Your task to perform on an android device: turn on priority inbox in the gmail app Image 0: 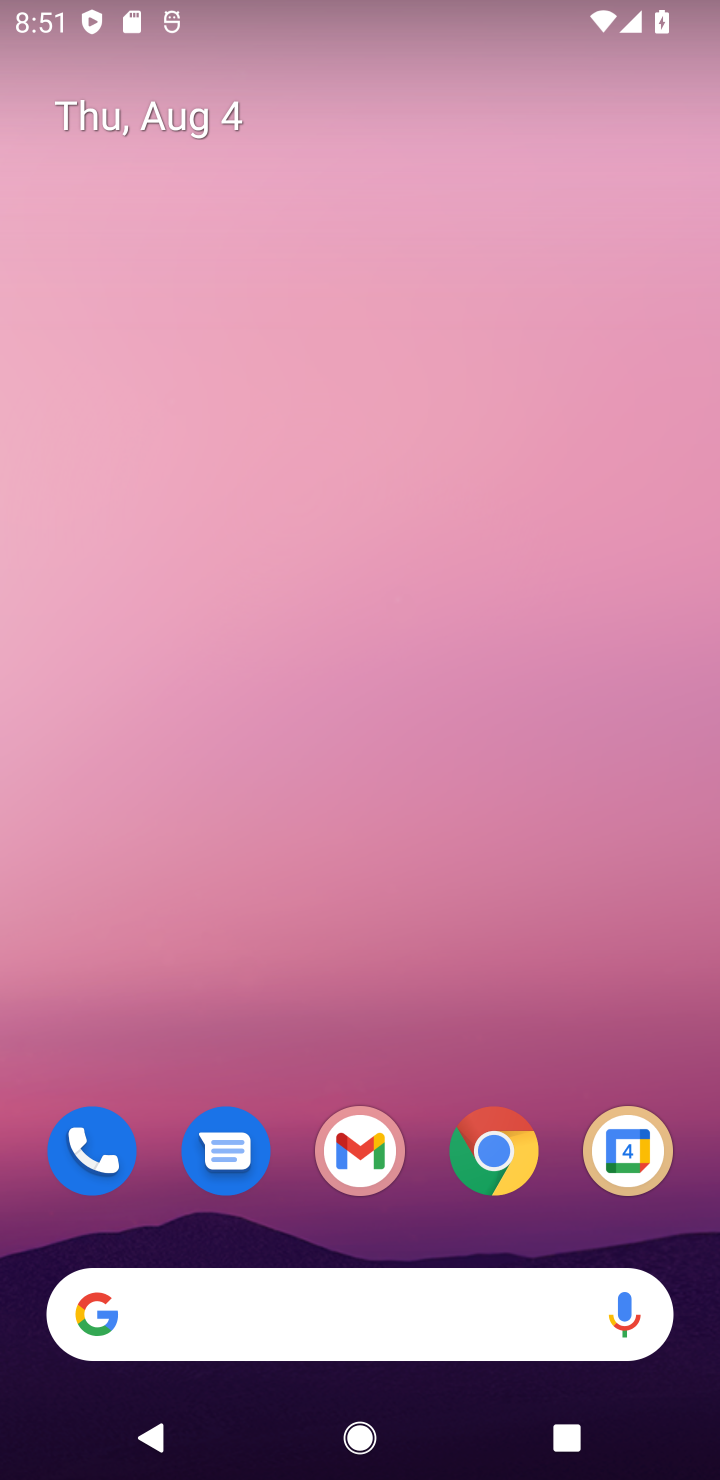
Step 0: drag from (358, 782) to (358, 213)
Your task to perform on an android device: turn on priority inbox in the gmail app Image 1: 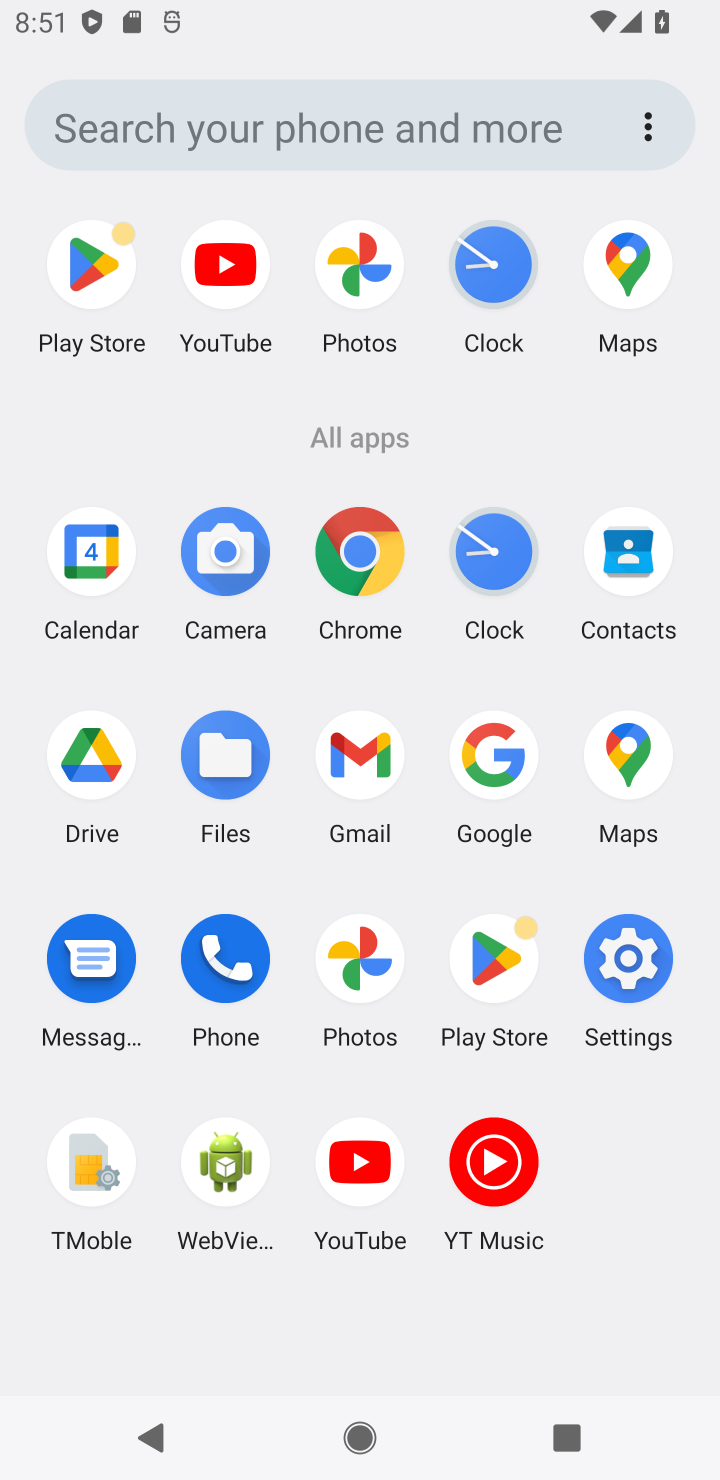
Step 1: click (374, 755)
Your task to perform on an android device: turn on priority inbox in the gmail app Image 2: 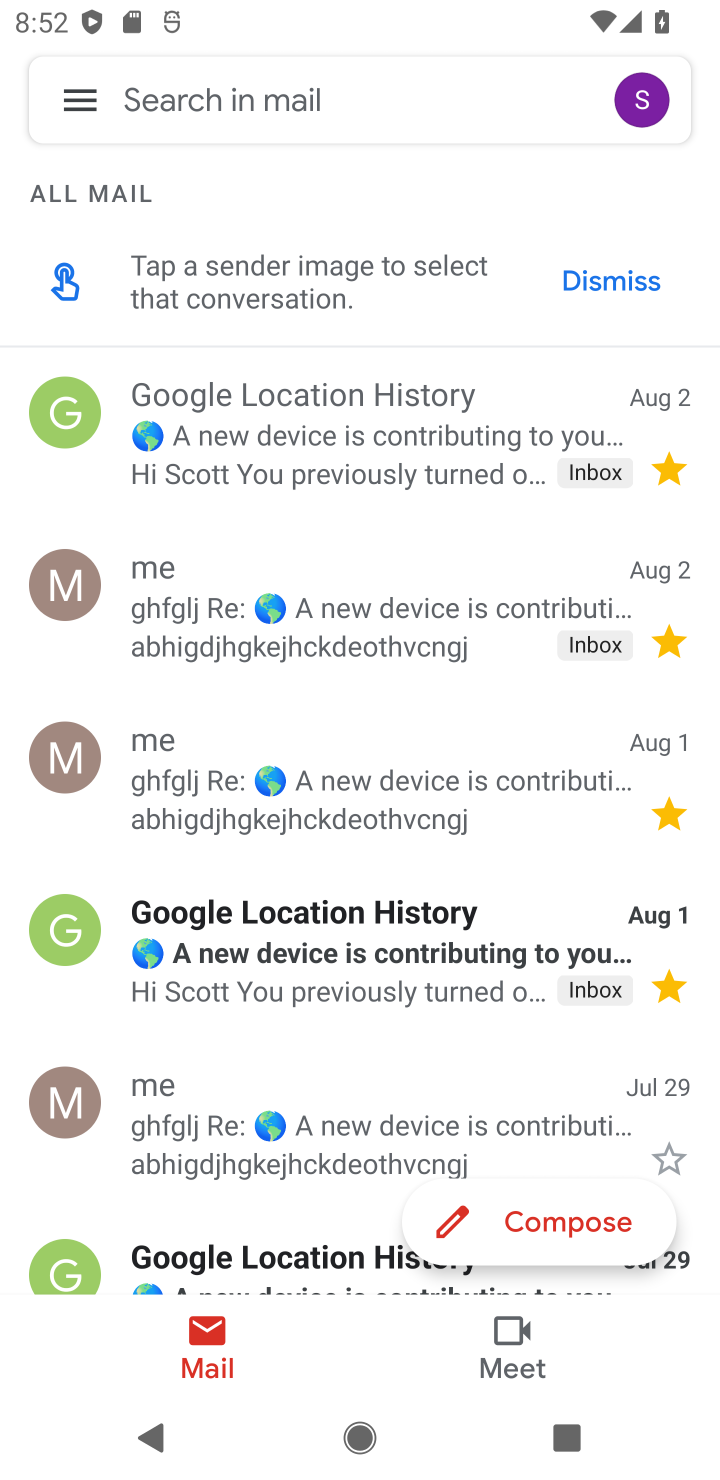
Step 2: click (89, 111)
Your task to perform on an android device: turn on priority inbox in the gmail app Image 3: 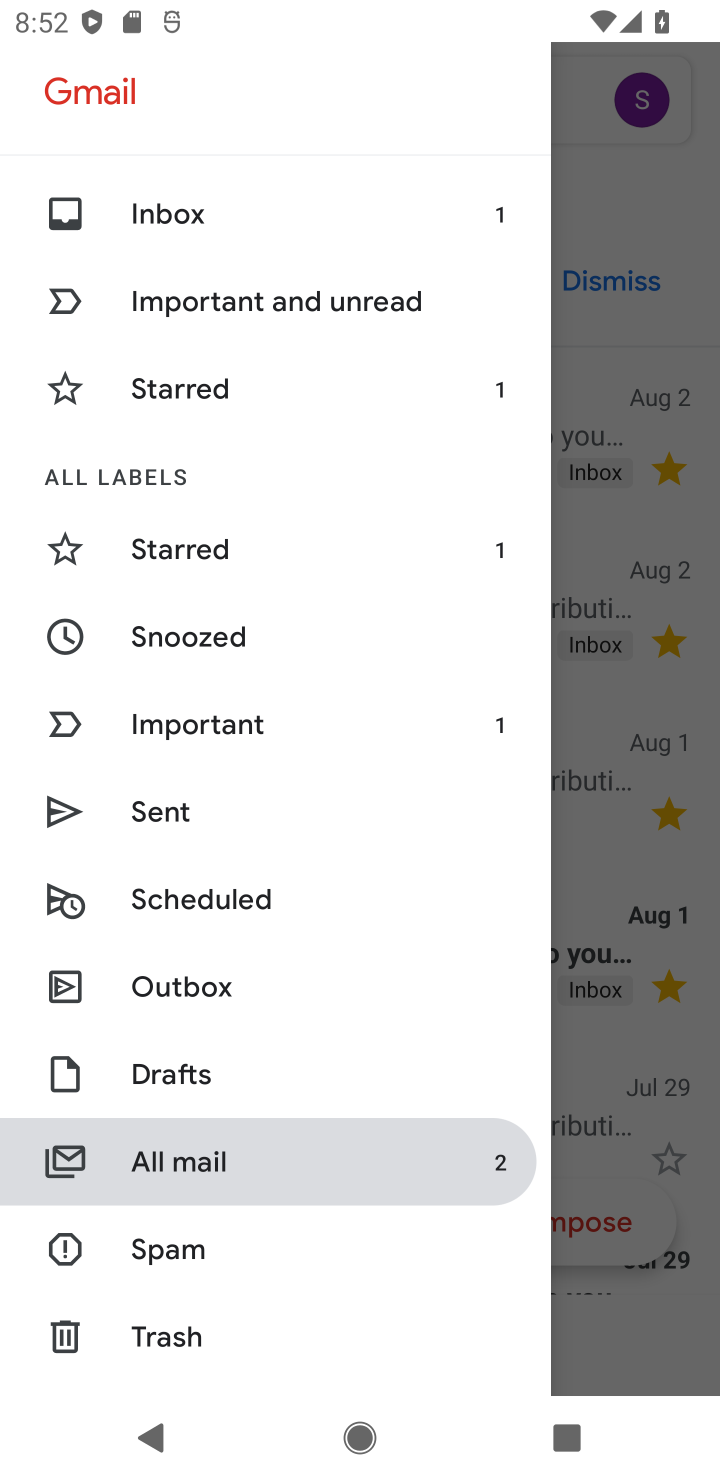
Step 3: drag from (382, 1130) to (298, 310)
Your task to perform on an android device: turn on priority inbox in the gmail app Image 4: 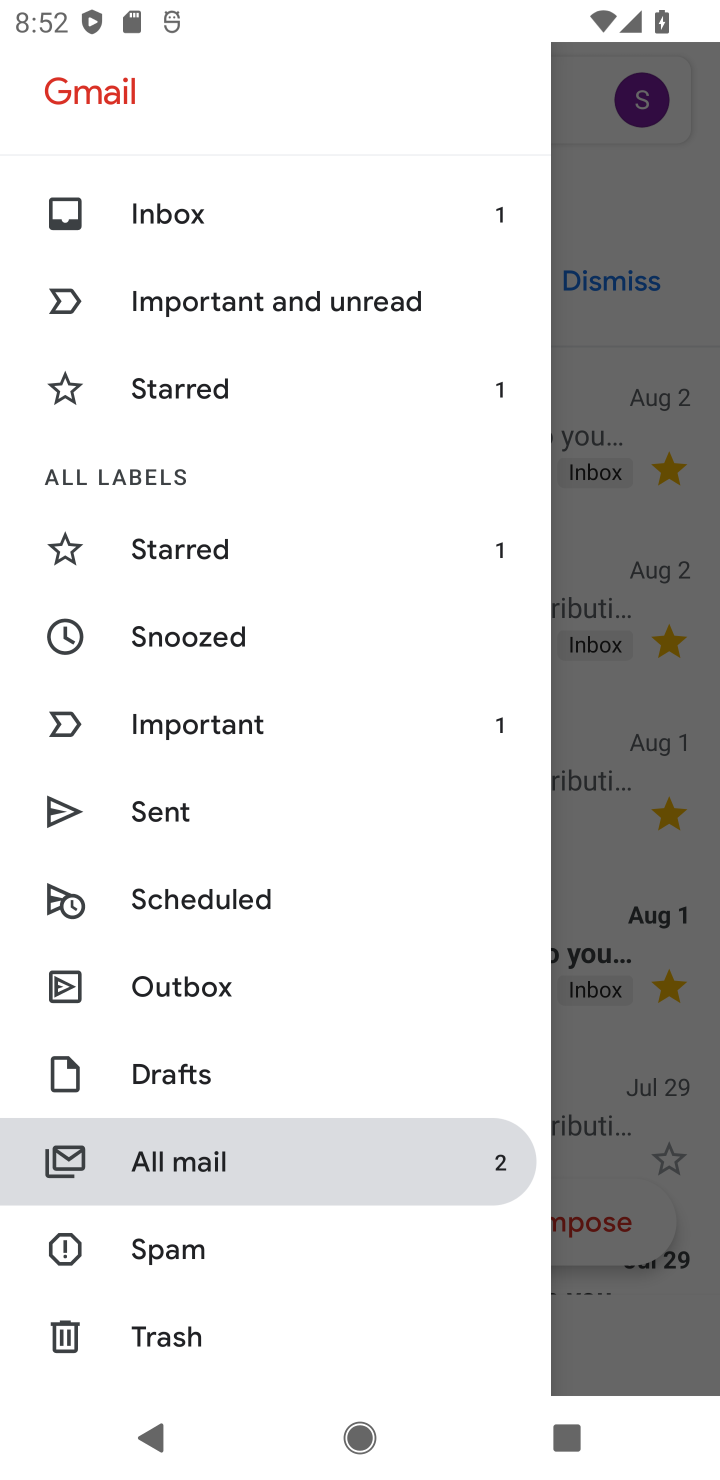
Step 4: drag from (212, 1018) to (239, 278)
Your task to perform on an android device: turn on priority inbox in the gmail app Image 5: 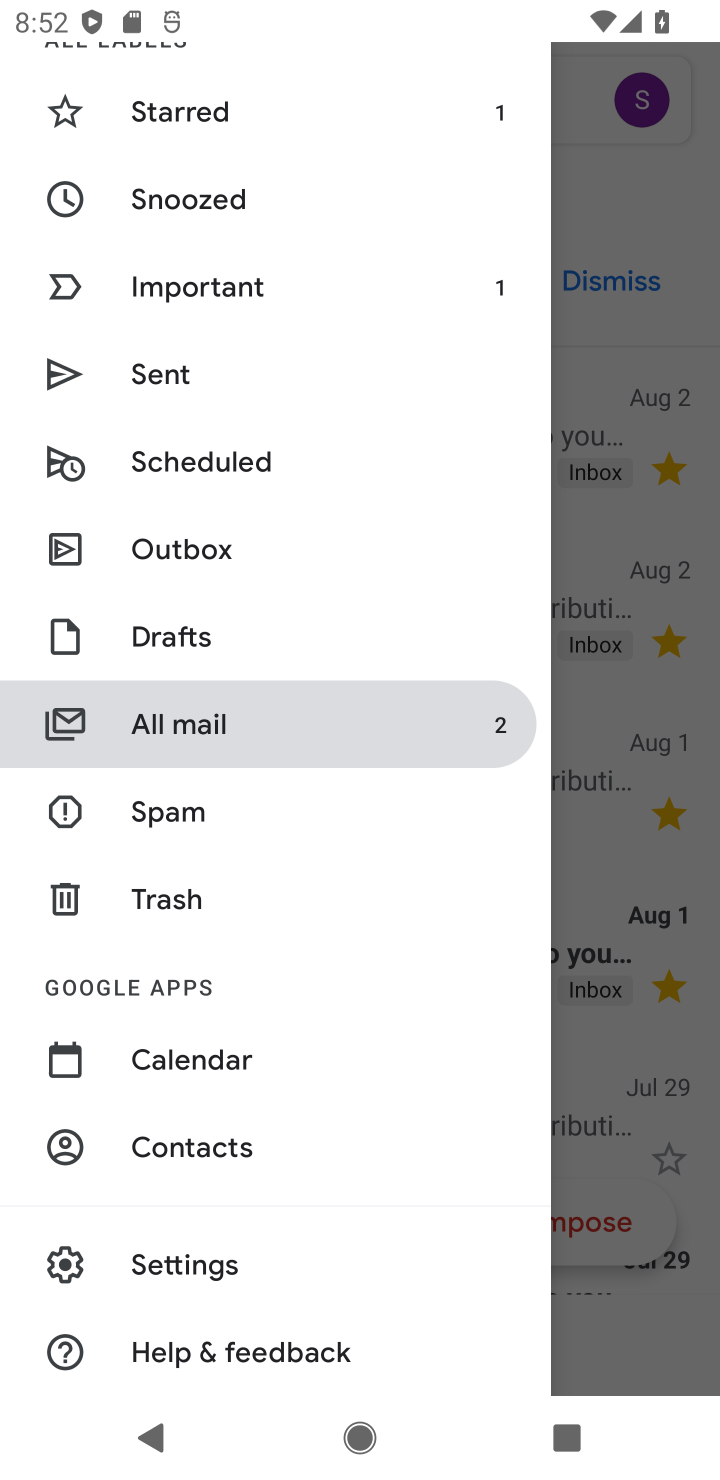
Step 5: click (169, 1269)
Your task to perform on an android device: turn on priority inbox in the gmail app Image 6: 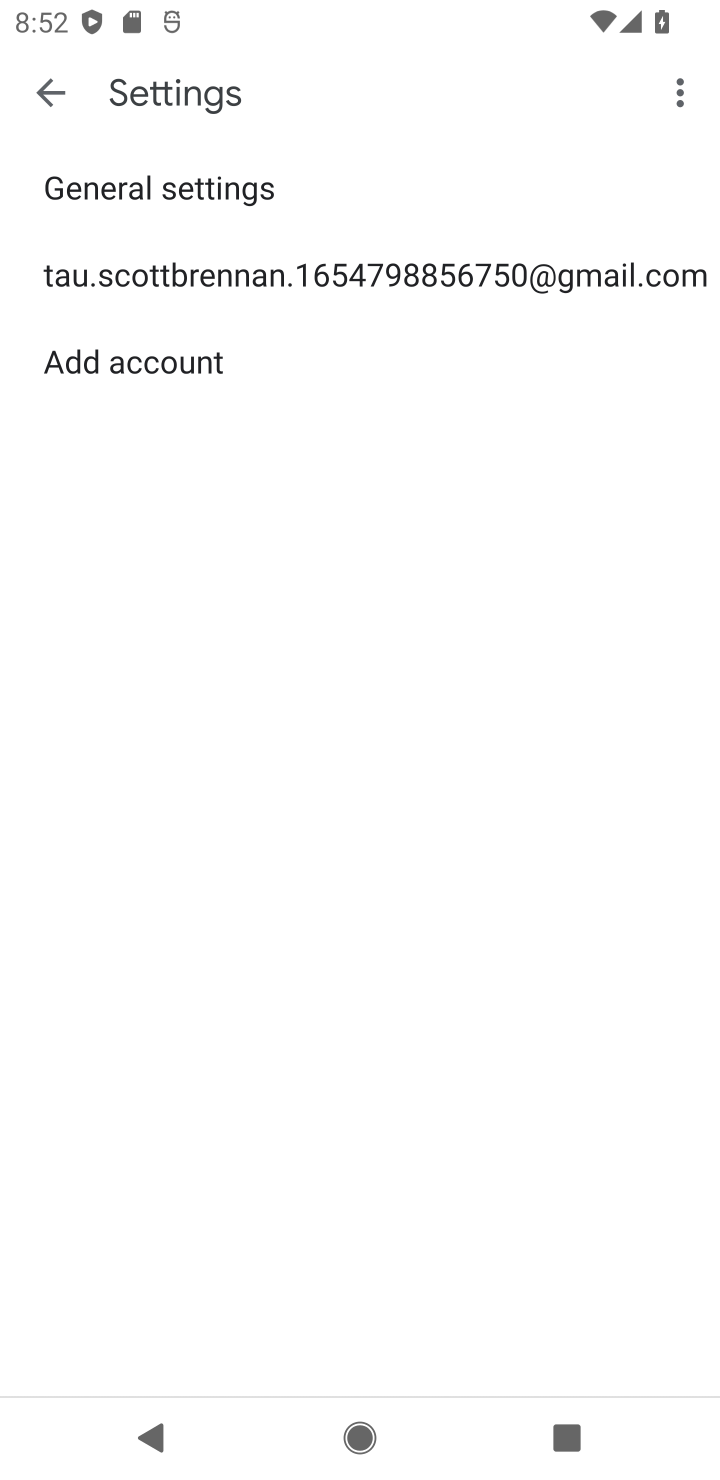
Step 6: click (150, 266)
Your task to perform on an android device: turn on priority inbox in the gmail app Image 7: 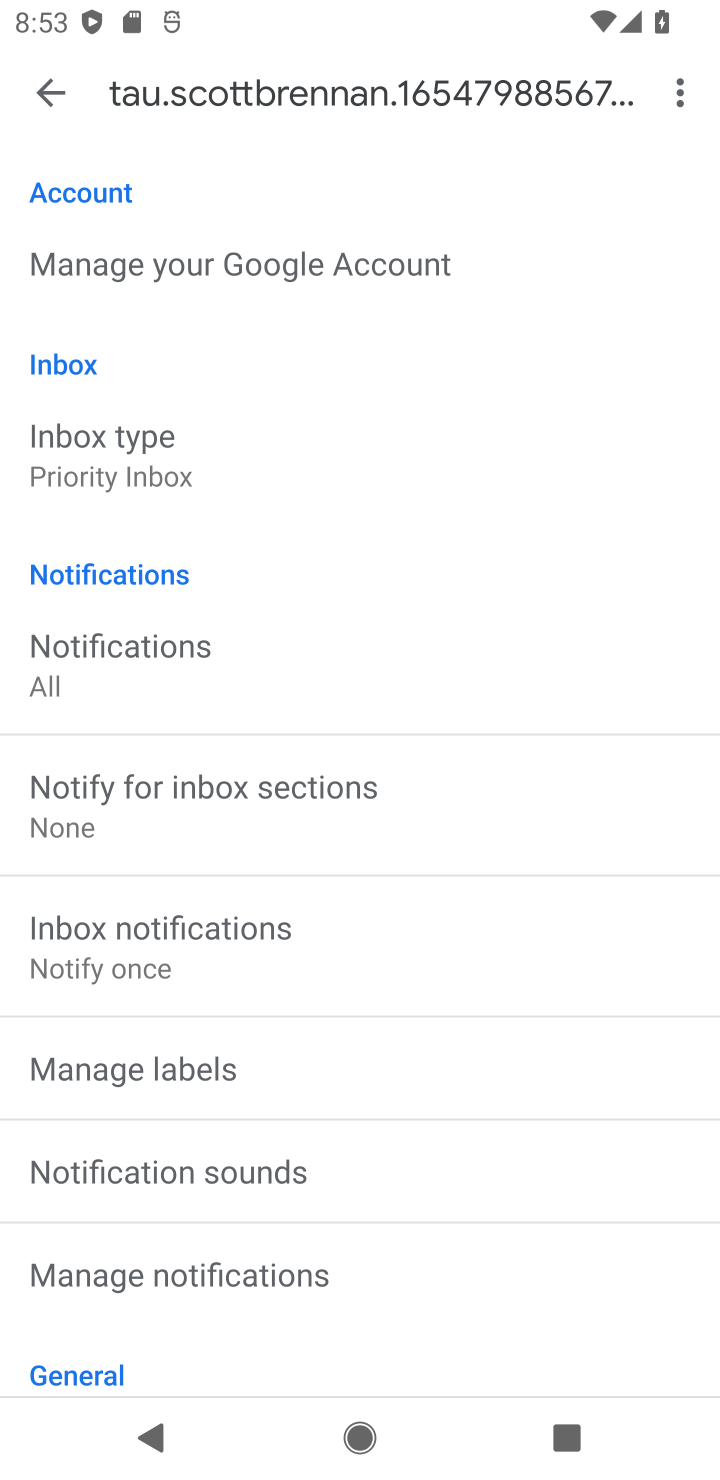
Step 7: click (158, 388)
Your task to perform on an android device: turn on priority inbox in the gmail app Image 8: 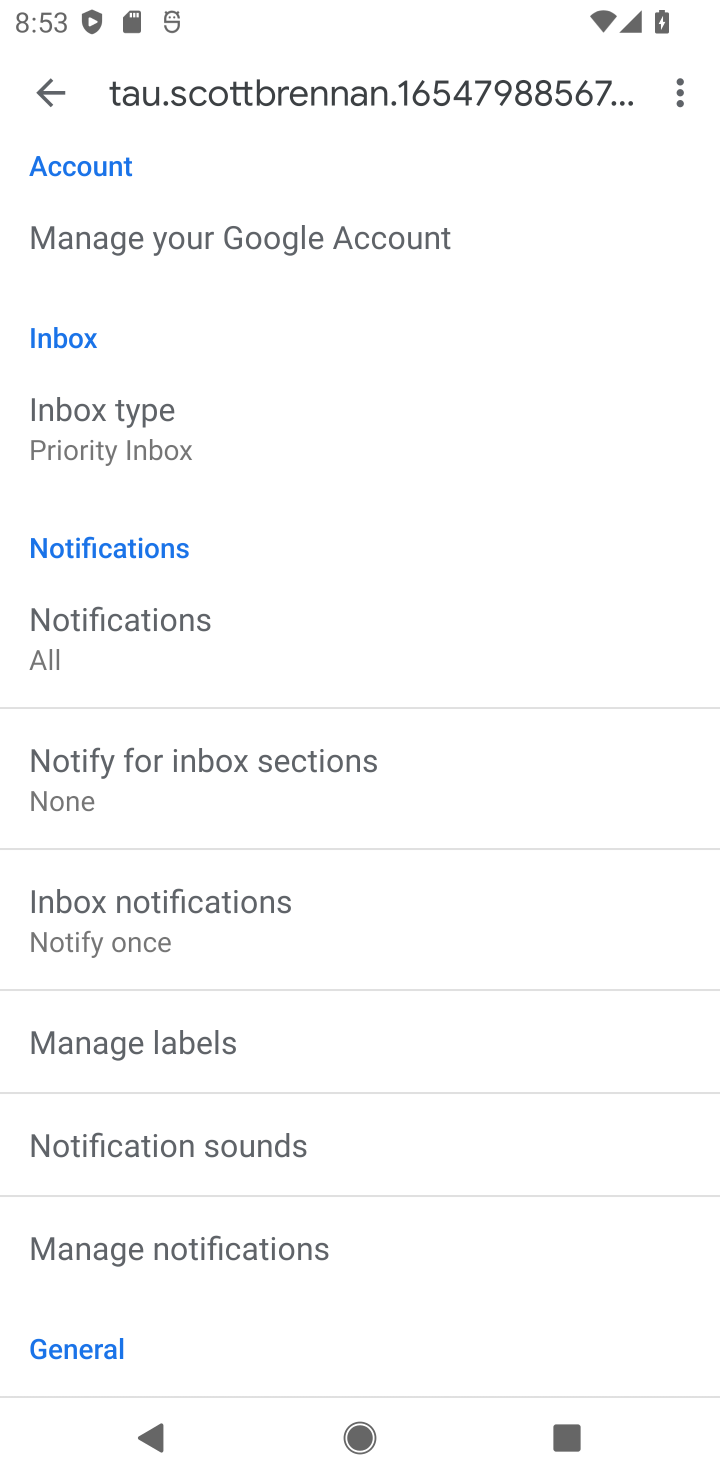
Step 8: task complete